Your task to perform on an android device: star an email in the gmail app Image 0: 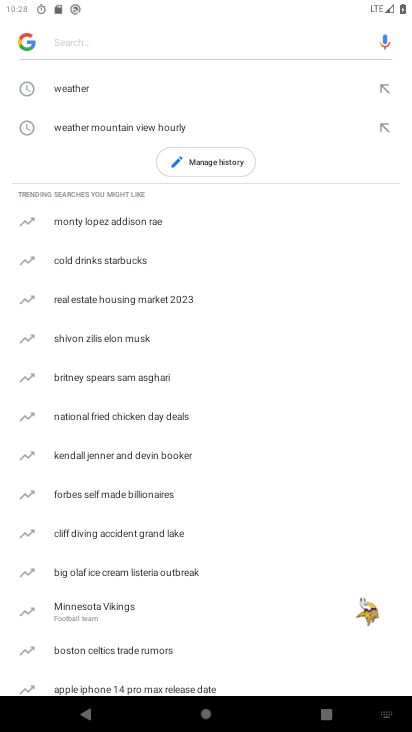
Step 0: press home button
Your task to perform on an android device: star an email in the gmail app Image 1: 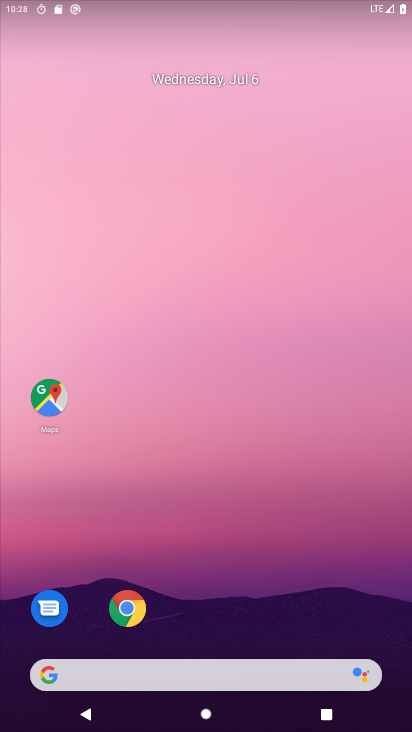
Step 1: drag from (229, 626) to (257, 106)
Your task to perform on an android device: star an email in the gmail app Image 2: 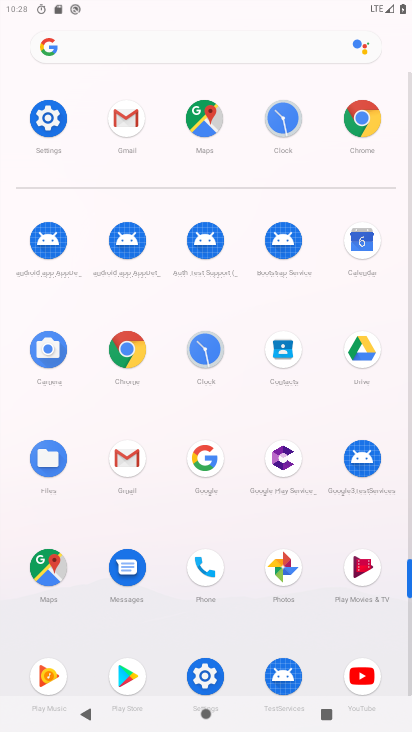
Step 2: click (121, 464)
Your task to perform on an android device: star an email in the gmail app Image 3: 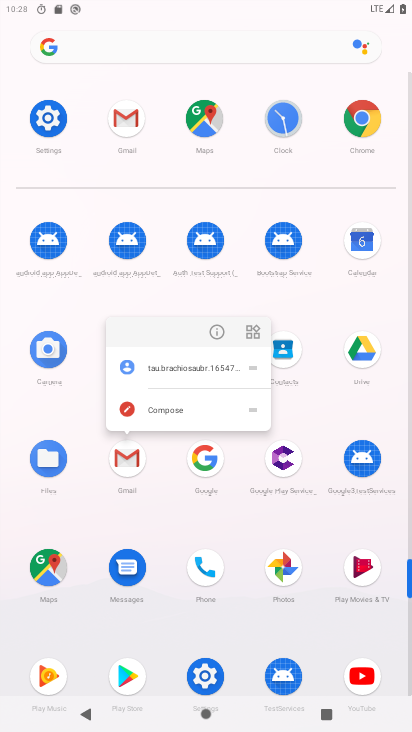
Step 3: click (140, 458)
Your task to perform on an android device: star an email in the gmail app Image 4: 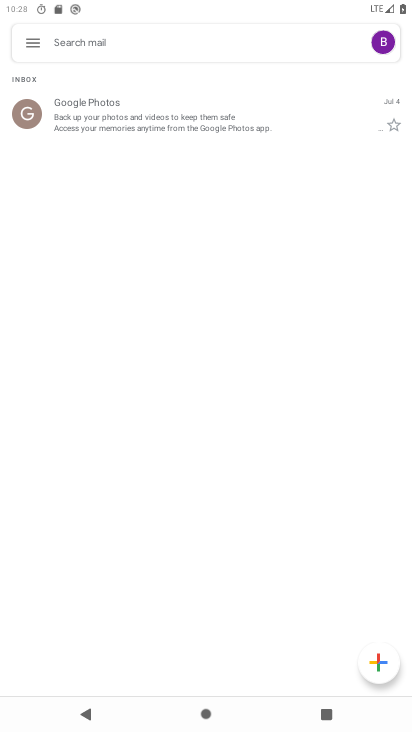
Step 4: click (391, 121)
Your task to perform on an android device: star an email in the gmail app Image 5: 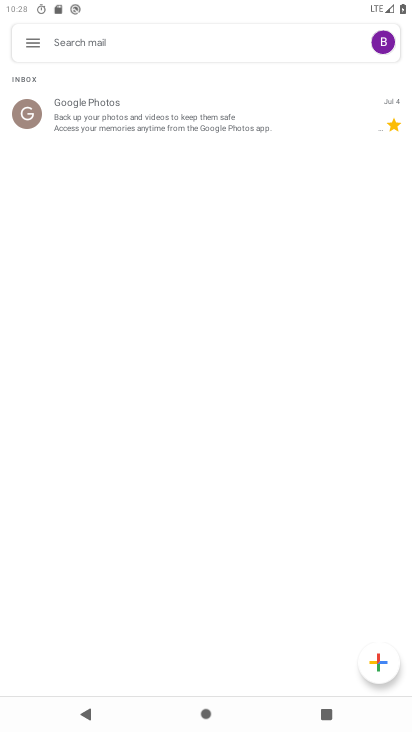
Step 5: task complete